Your task to perform on an android device: turn off priority inbox in the gmail app Image 0: 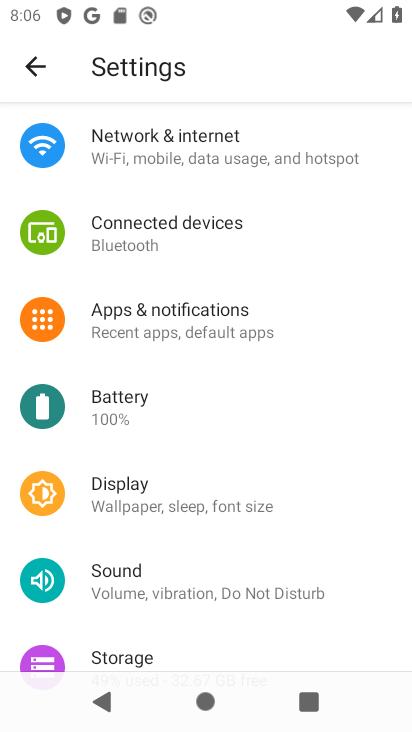
Step 0: press home button
Your task to perform on an android device: turn off priority inbox in the gmail app Image 1: 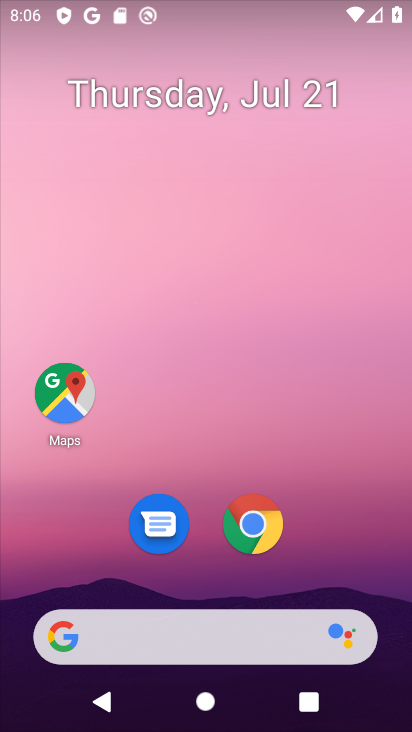
Step 1: drag from (223, 625) to (300, 71)
Your task to perform on an android device: turn off priority inbox in the gmail app Image 2: 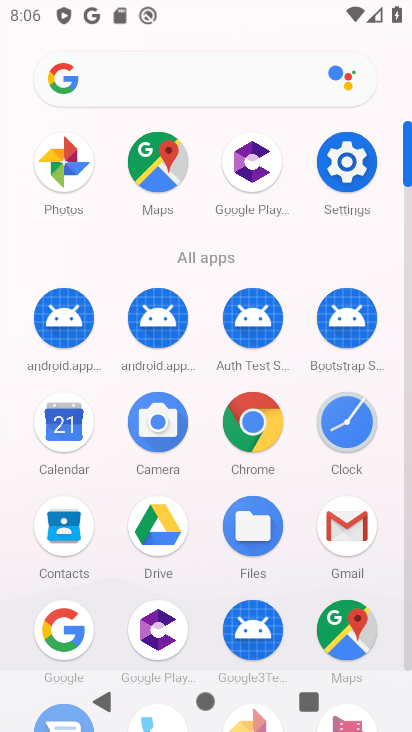
Step 2: click (352, 533)
Your task to perform on an android device: turn off priority inbox in the gmail app Image 3: 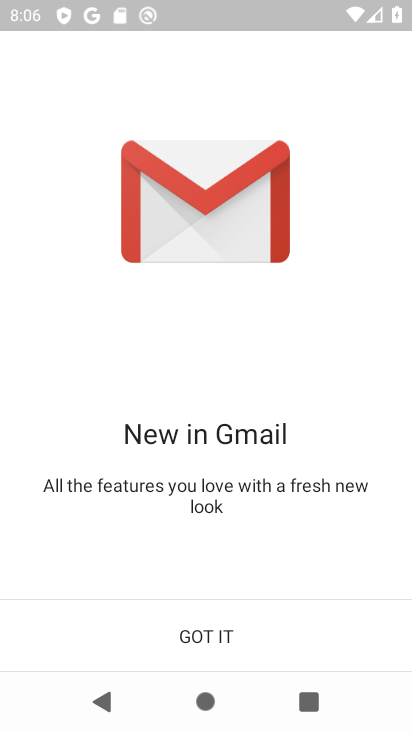
Step 3: click (198, 647)
Your task to perform on an android device: turn off priority inbox in the gmail app Image 4: 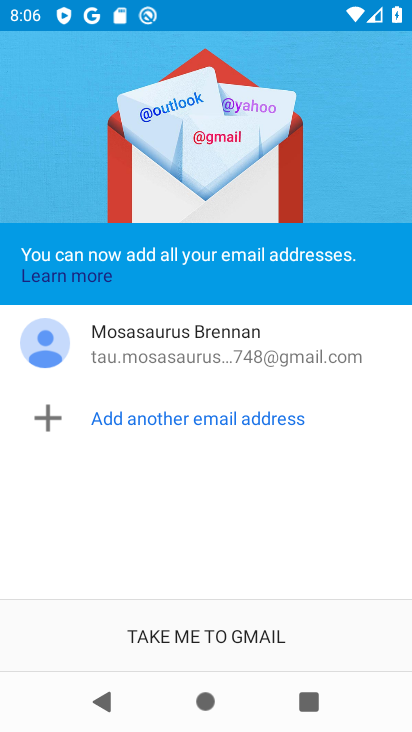
Step 4: click (200, 645)
Your task to perform on an android device: turn off priority inbox in the gmail app Image 5: 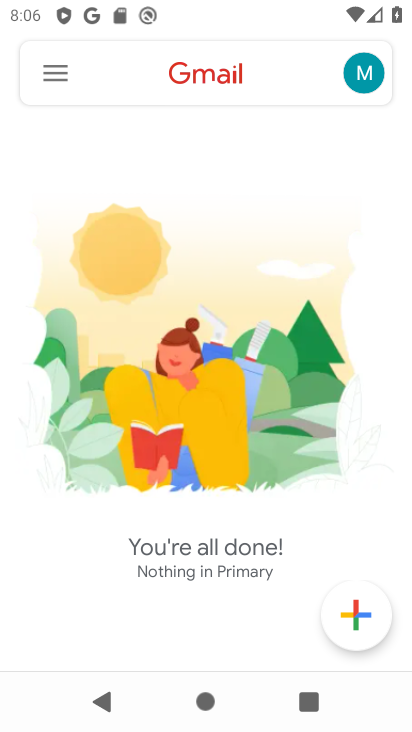
Step 5: click (61, 69)
Your task to perform on an android device: turn off priority inbox in the gmail app Image 6: 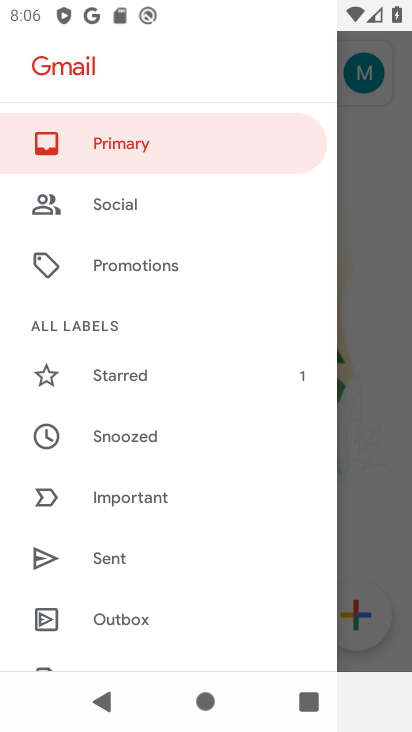
Step 6: drag from (199, 595) to (279, 142)
Your task to perform on an android device: turn off priority inbox in the gmail app Image 7: 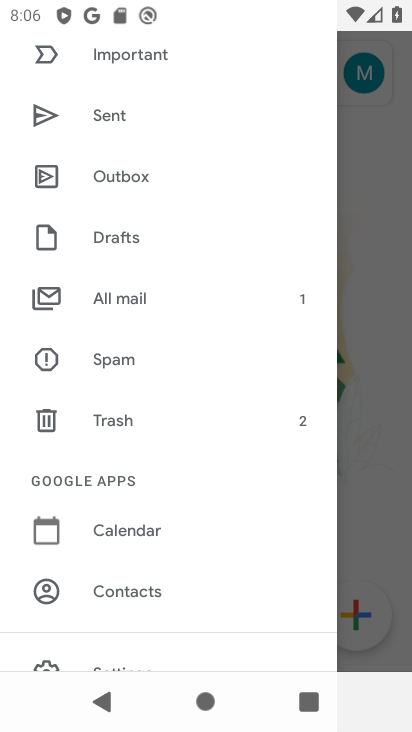
Step 7: drag from (183, 567) to (253, 122)
Your task to perform on an android device: turn off priority inbox in the gmail app Image 8: 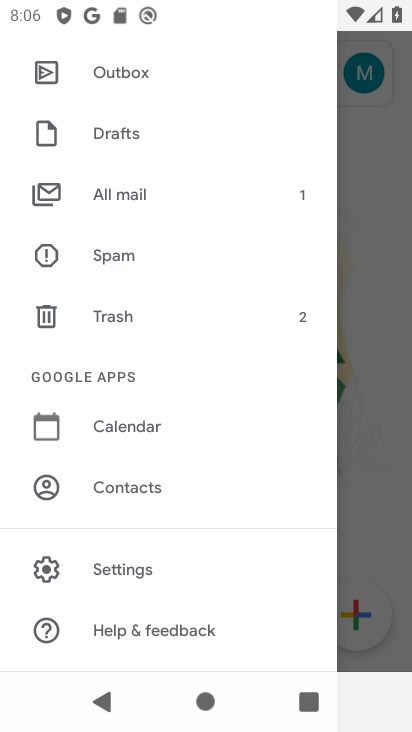
Step 8: click (121, 580)
Your task to perform on an android device: turn off priority inbox in the gmail app Image 9: 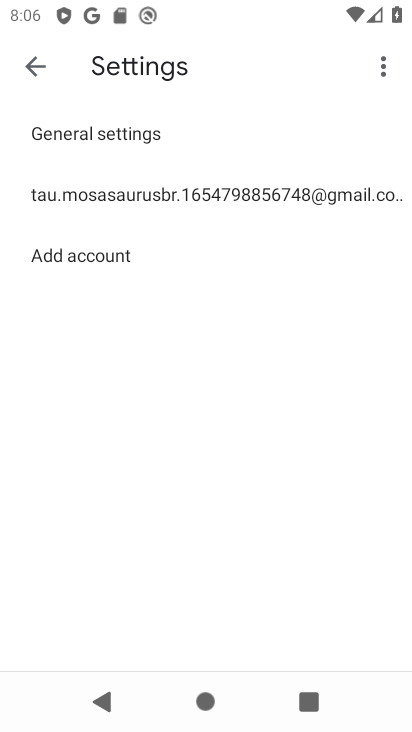
Step 9: click (274, 193)
Your task to perform on an android device: turn off priority inbox in the gmail app Image 10: 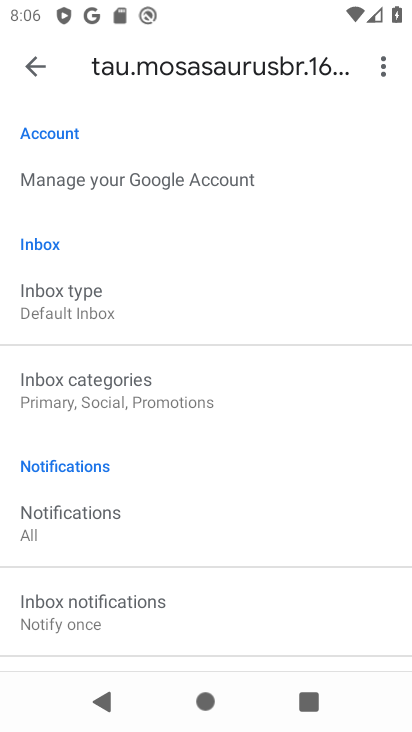
Step 10: click (86, 306)
Your task to perform on an android device: turn off priority inbox in the gmail app Image 11: 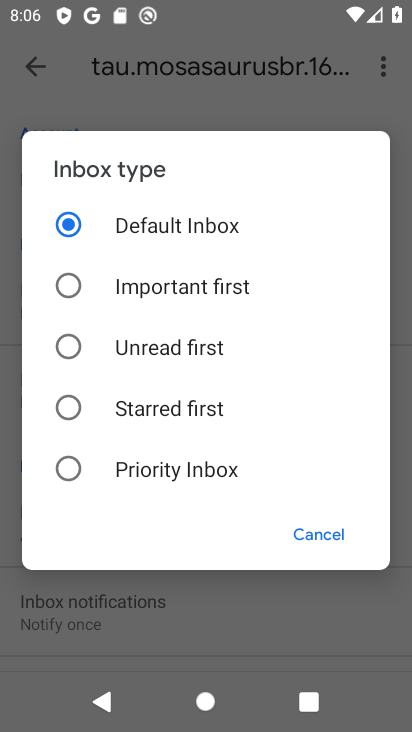
Step 11: task complete